Your task to perform on an android device: Open the web browser Image 0: 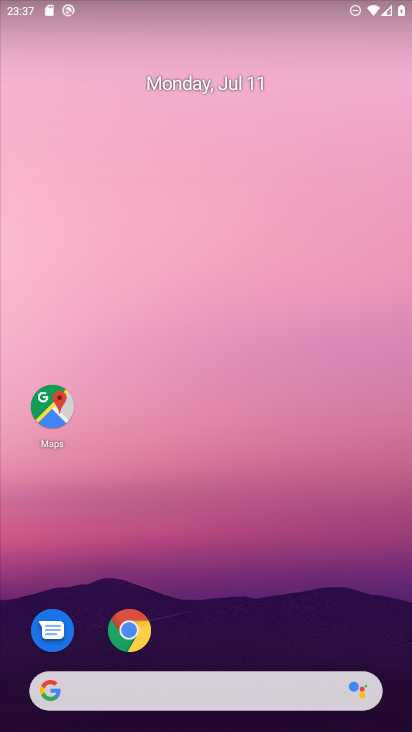
Step 0: drag from (180, 647) to (224, 69)
Your task to perform on an android device: Open the web browser Image 1: 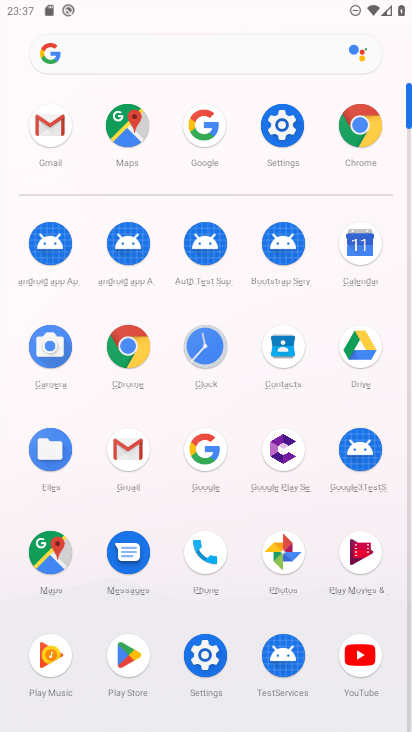
Step 1: click (208, 451)
Your task to perform on an android device: Open the web browser Image 2: 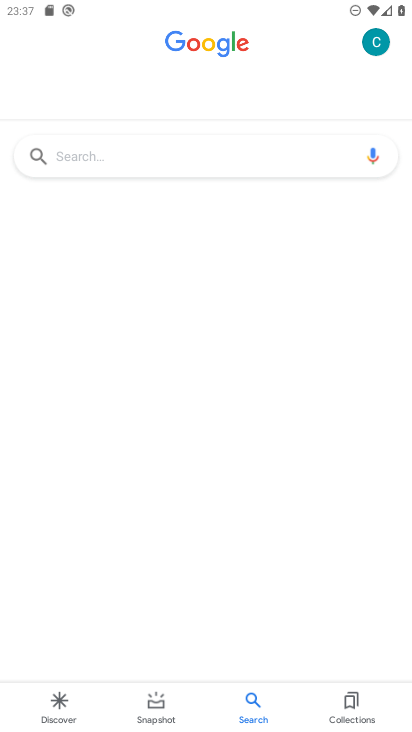
Step 2: task complete